Your task to perform on an android device: Open Google Maps Image 0: 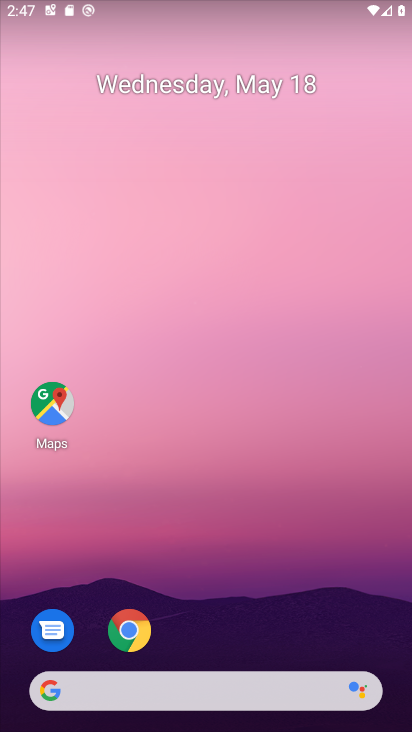
Step 0: click (41, 392)
Your task to perform on an android device: Open Google Maps Image 1: 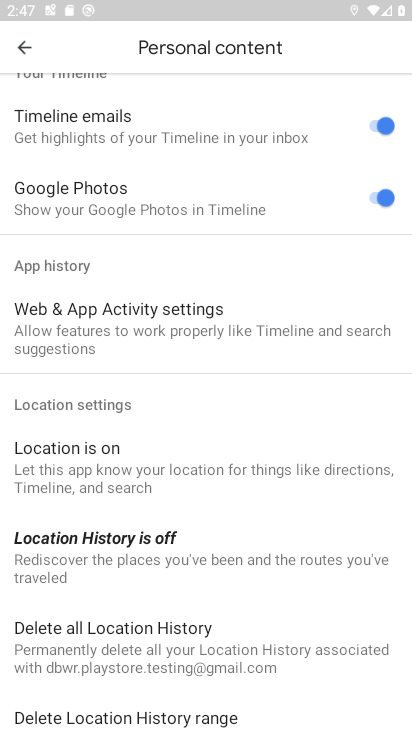
Step 1: click (20, 31)
Your task to perform on an android device: Open Google Maps Image 2: 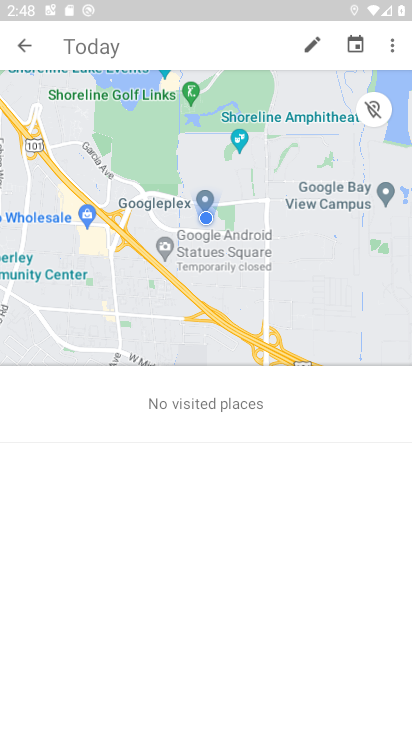
Step 2: click (28, 36)
Your task to perform on an android device: Open Google Maps Image 3: 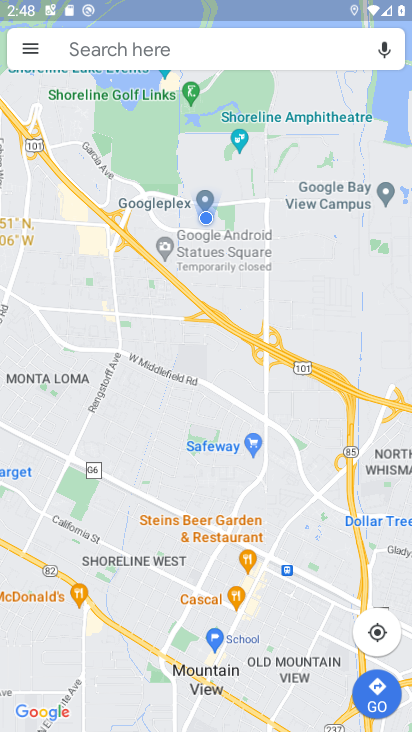
Step 3: task complete